Your task to perform on an android device: turn vacation reply on in the gmail app Image 0: 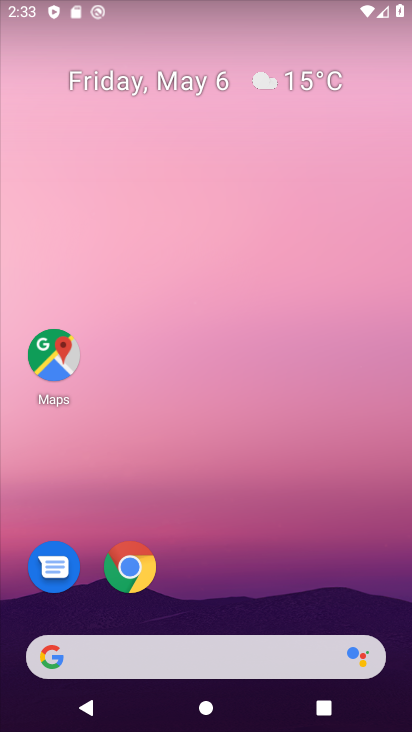
Step 0: drag from (151, 607) to (233, 106)
Your task to perform on an android device: turn vacation reply on in the gmail app Image 1: 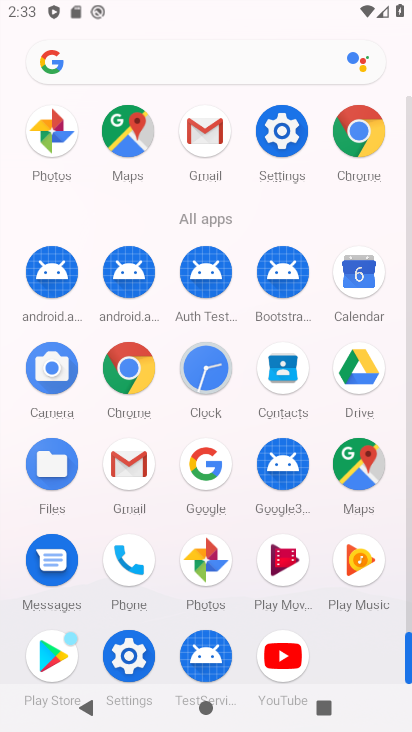
Step 1: click (126, 477)
Your task to perform on an android device: turn vacation reply on in the gmail app Image 2: 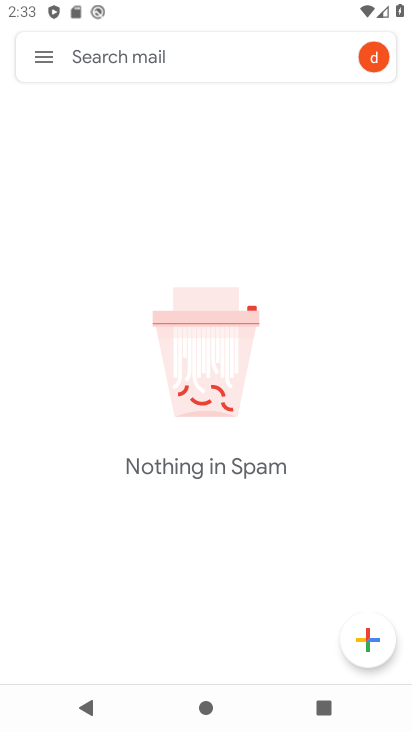
Step 2: click (40, 54)
Your task to perform on an android device: turn vacation reply on in the gmail app Image 3: 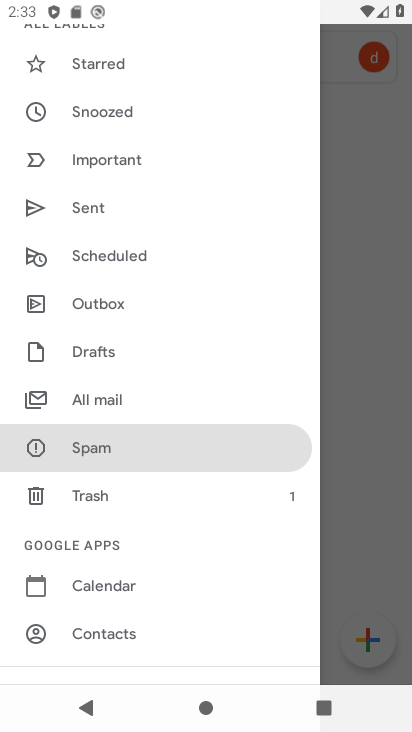
Step 3: drag from (129, 623) to (199, 352)
Your task to perform on an android device: turn vacation reply on in the gmail app Image 4: 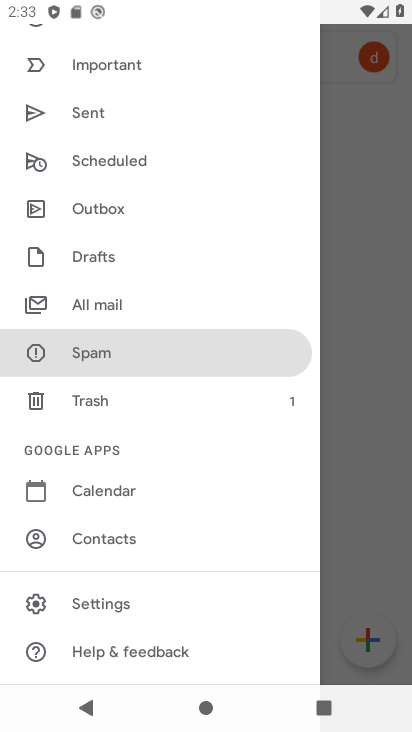
Step 4: click (116, 610)
Your task to perform on an android device: turn vacation reply on in the gmail app Image 5: 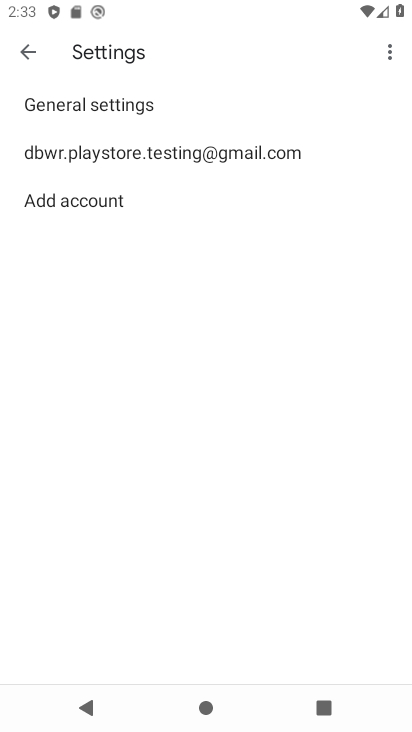
Step 5: click (273, 161)
Your task to perform on an android device: turn vacation reply on in the gmail app Image 6: 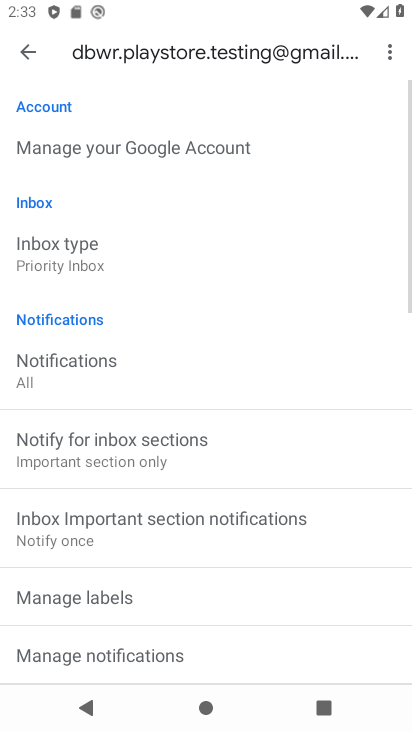
Step 6: drag from (150, 660) to (269, 198)
Your task to perform on an android device: turn vacation reply on in the gmail app Image 7: 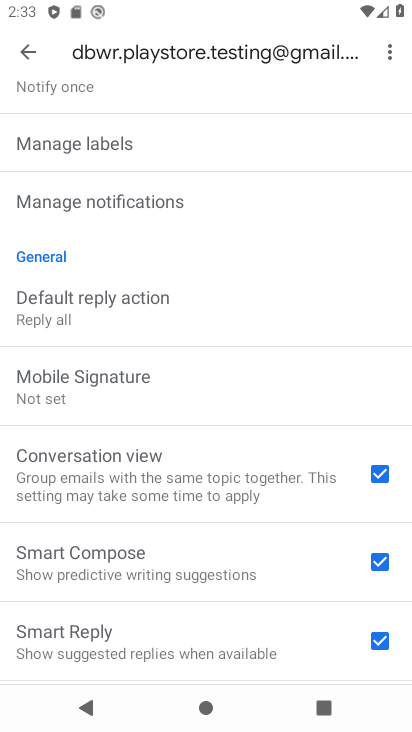
Step 7: drag from (158, 533) to (284, 153)
Your task to perform on an android device: turn vacation reply on in the gmail app Image 8: 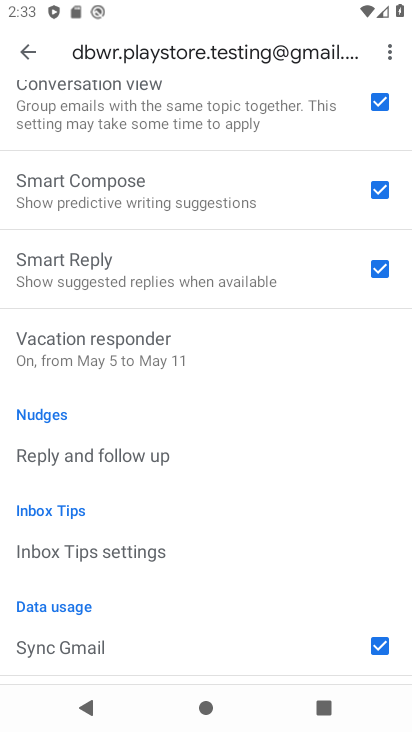
Step 8: click (252, 345)
Your task to perform on an android device: turn vacation reply on in the gmail app Image 9: 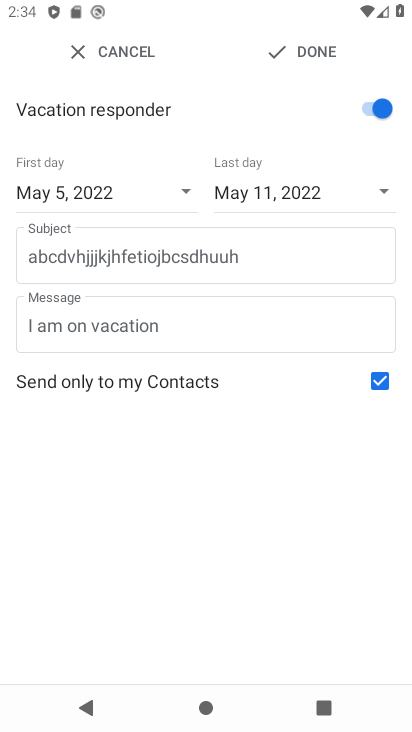
Step 9: task complete